Your task to perform on an android device: toggle pop-ups in chrome Image 0: 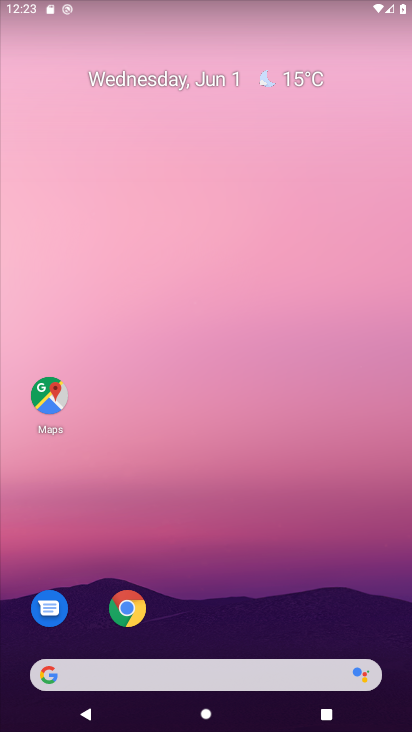
Step 0: click (126, 603)
Your task to perform on an android device: toggle pop-ups in chrome Image 1: 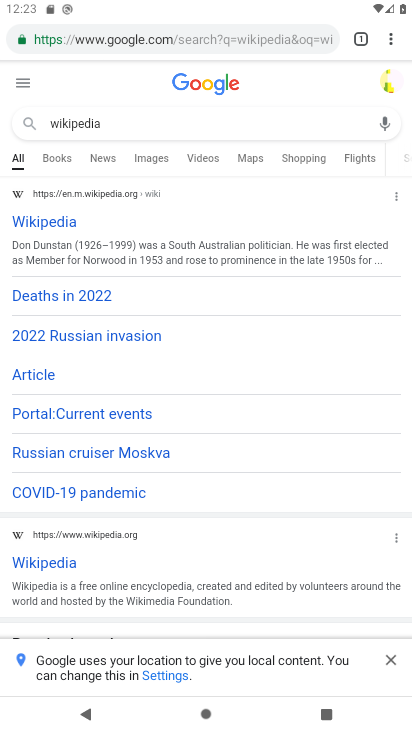
Step 1: click (392, 40)
Your task to perform on an android device: toggle pop-ups in chrome Image 2: 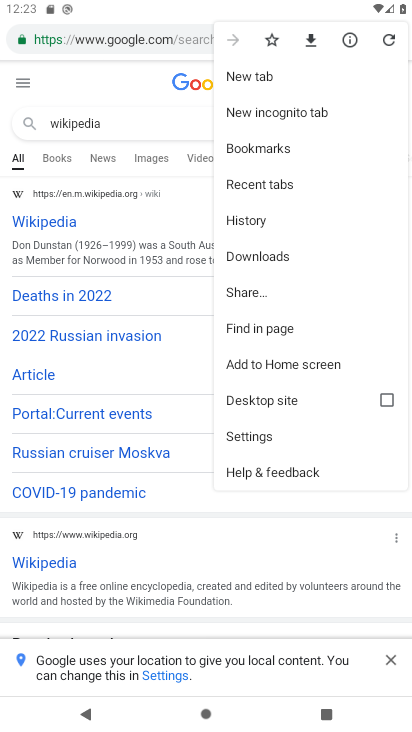
Step 2: click (265, 436)
Your task to perform on an android device: toggle pop-ups in chrome Image 3: 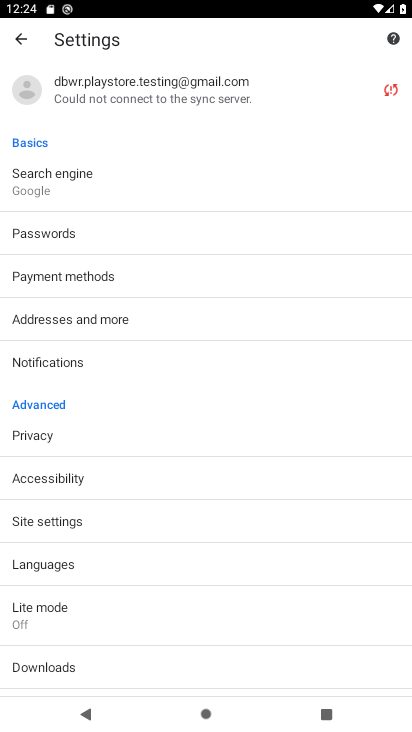
Step 3: click (48, 517)
Your task to perform on an android device: toggle pop-ups in chrome Image 4: 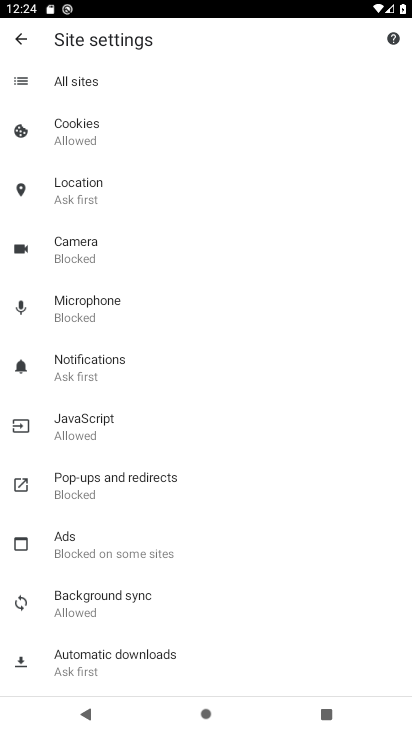
Step 4: click (99, 481)
Your task to perform on an android device: toggle pop-ups in chrome Image 5: 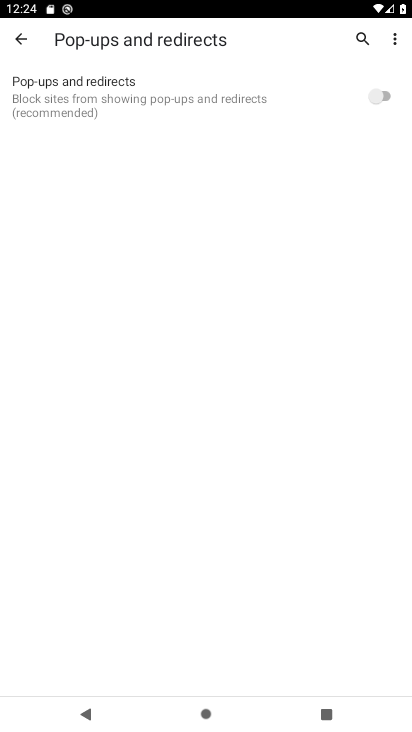
Step 5: click (359, 105)
Your task to perform on an android device: toggle pop-ups in chrome Image 6: 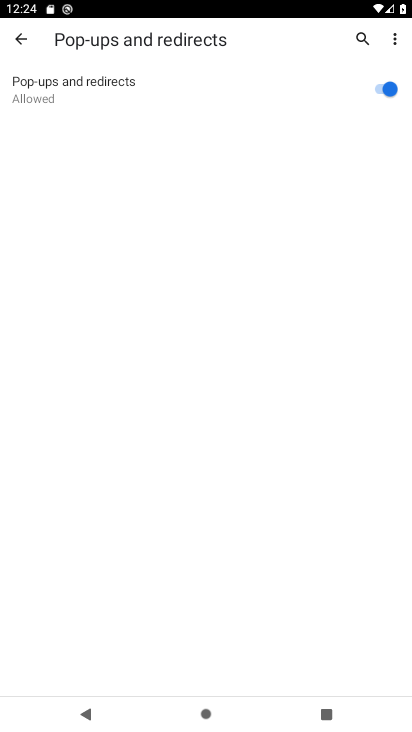
Step 6: task complete